Your task to perform on an android device: Go to Amazon Image 0: 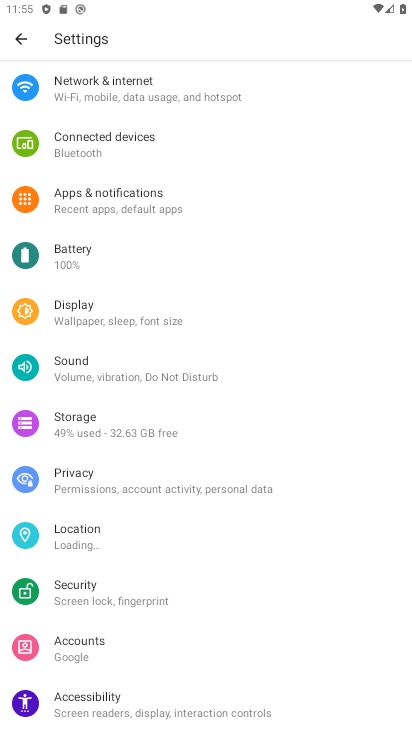
Step 0: press home button
Your task to perform on an android device: Go to Amazon Image 1: 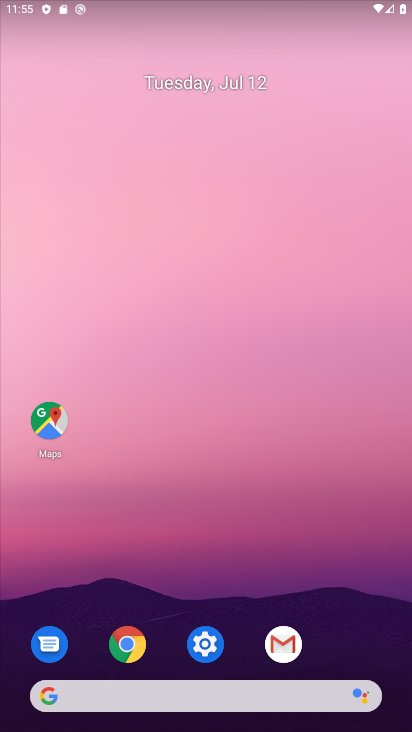
Step 1: click (129, 638)
Your task to perform on an android device: Go to Amazon Image 2: 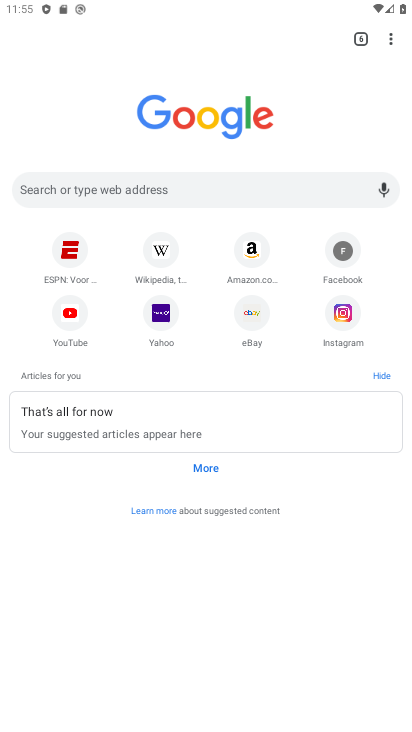
Step 2: click (249, 249)
Your task to perform on an android device: Go to Amazon Image 3: 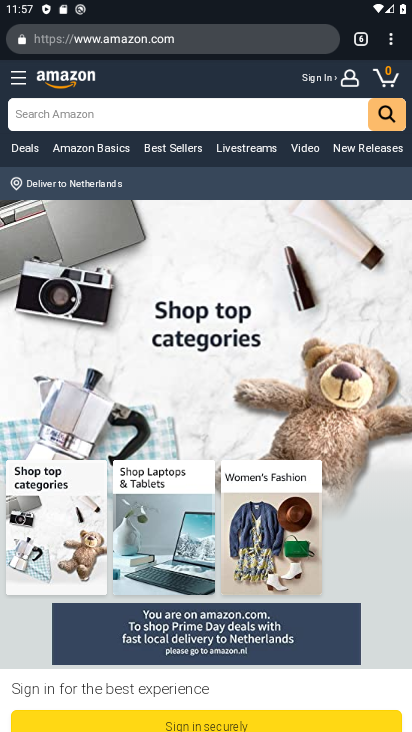
Step 3: task complete